Your task to perform on an android device: Open the calendar and show me this week's events Image 0: 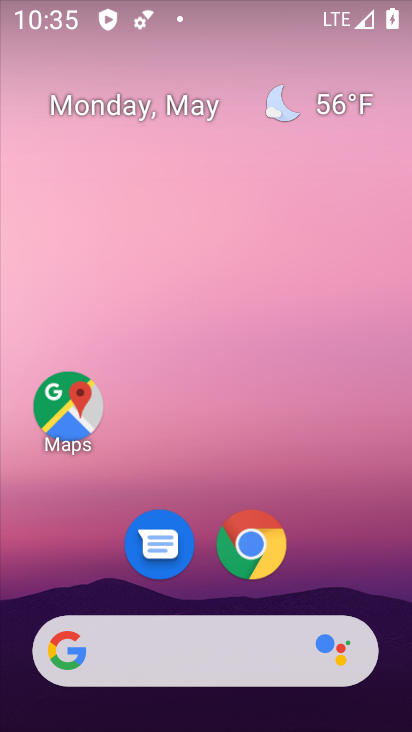
Step 0: drag from (321, 574) to (230, 102)
Your task to perform on an android device: Open the calendar and show me this week's events Image 1: 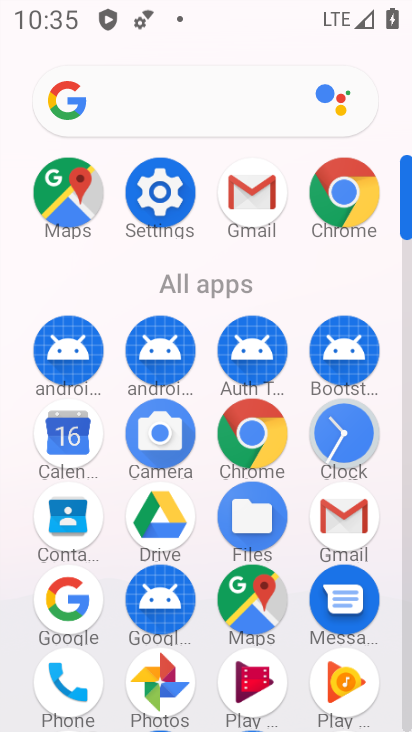
Step 1: click (73, 442)
Your task to perform on an android device: Open the calendar and show me this week's events Image 2: 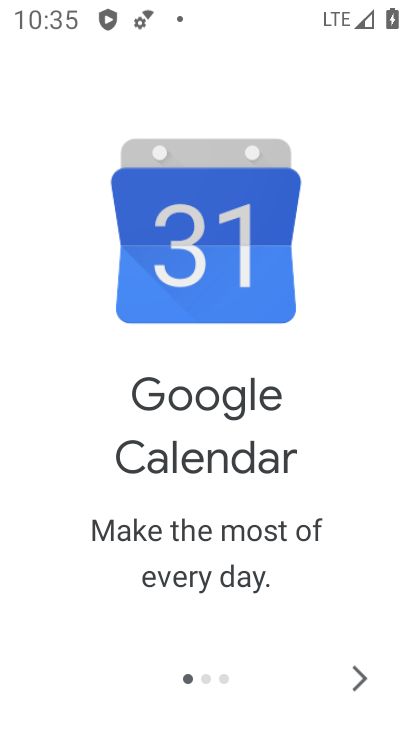
Step 2: click (359, 668)
Your task to perform on an android device: Open the calendar and show me this week's events Image 3: 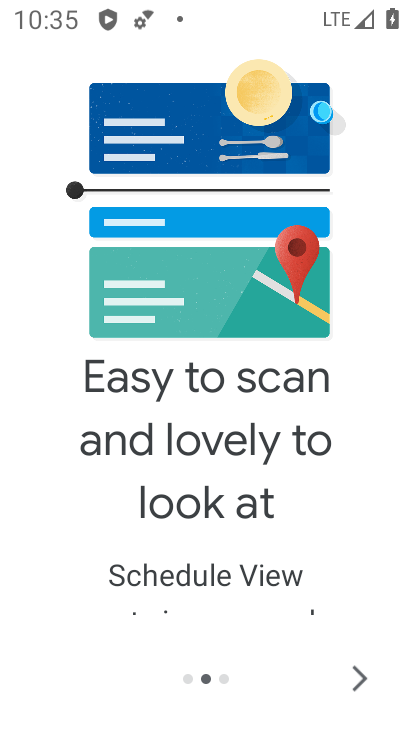
Step 3: click (359, 668)
Your task to perform on an android device: Open the calendar and show me this week's events Image 4: 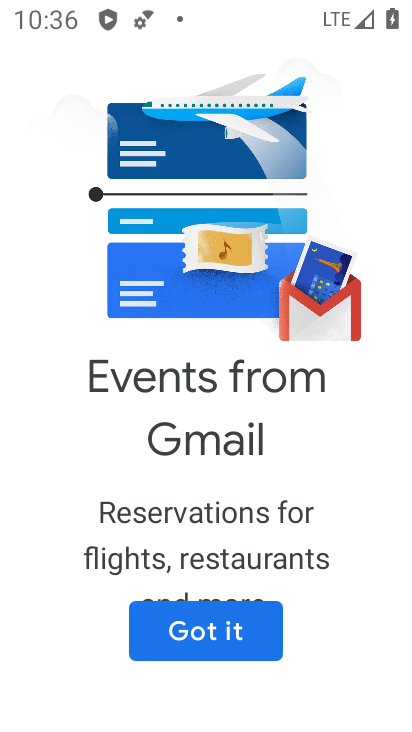
Step 4: click (212, 629)
Your task to perform on an android device: Open the calendar and show me this week's events Image 5: 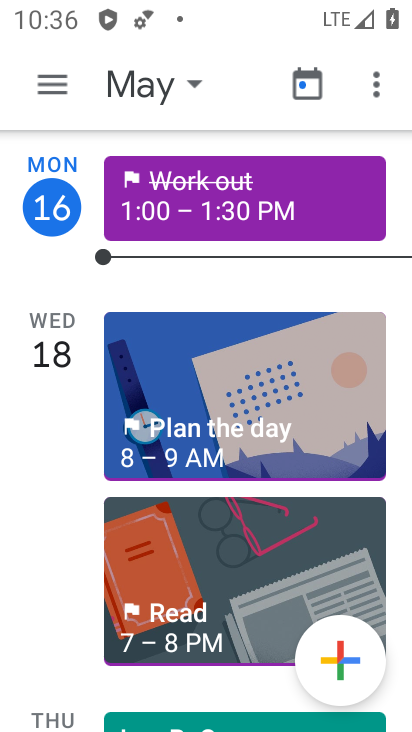
Step 5: task complete